Your task to perform on an android device: Go to CNN.com Image 0: 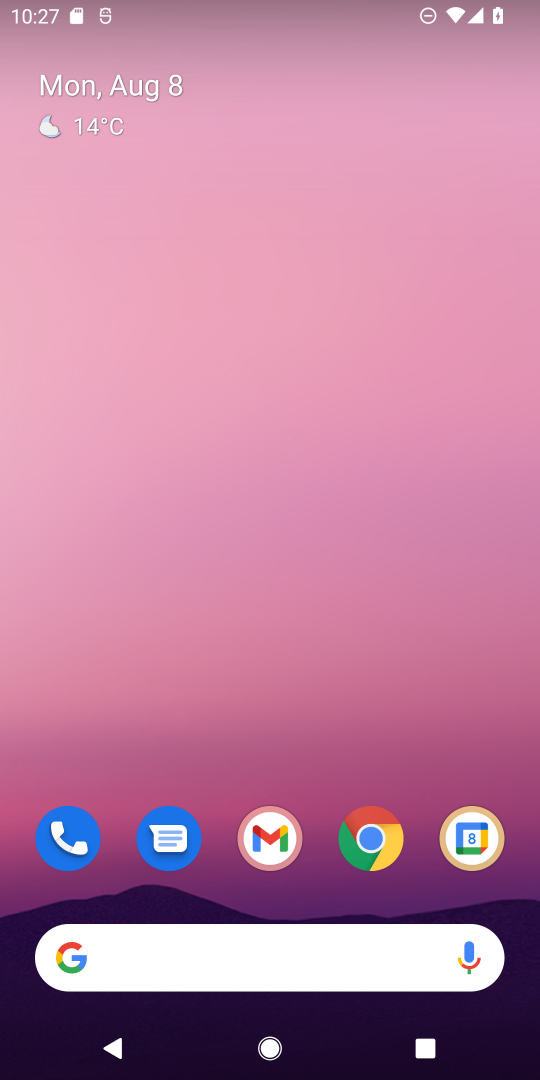
Step 0: click (54, 969)
Your task to perform on an android device: Go to CNN.com Image 1: 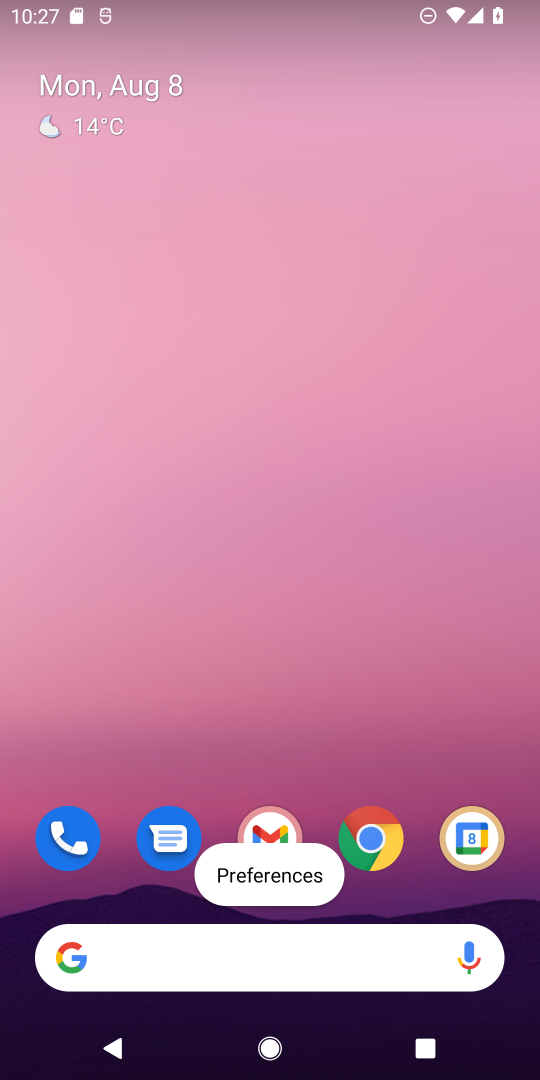
Step 1: click (55, 968)
Your task to perform on an android device: Go to CNN.com Image 2: 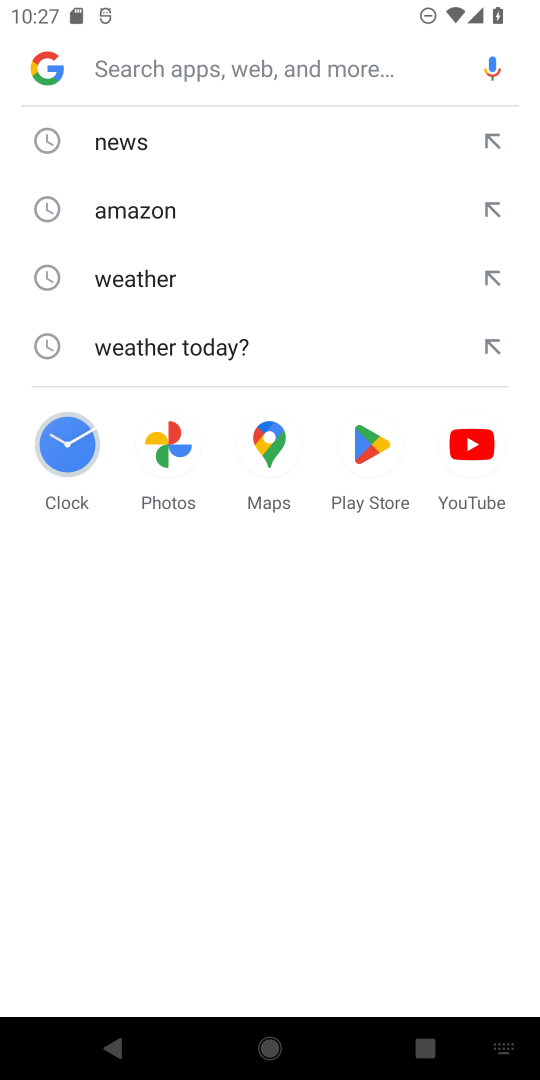
Step 2: press enter
Your task to perform on an android device: Go to CNN.com Image 3: 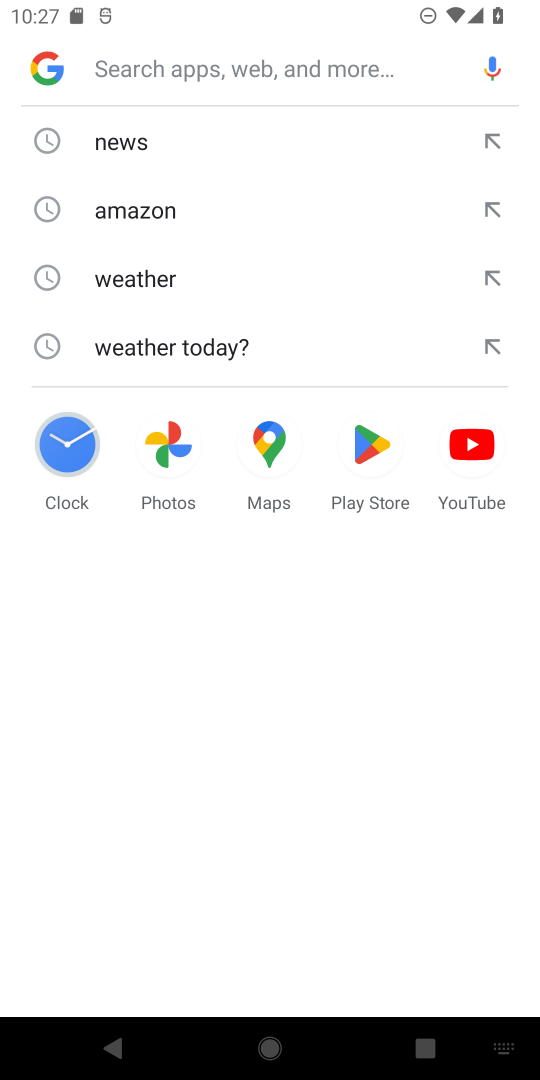
Step 3: type "CNN.com"
Your task to perform on an android device: Go to CNN.com Image 4: 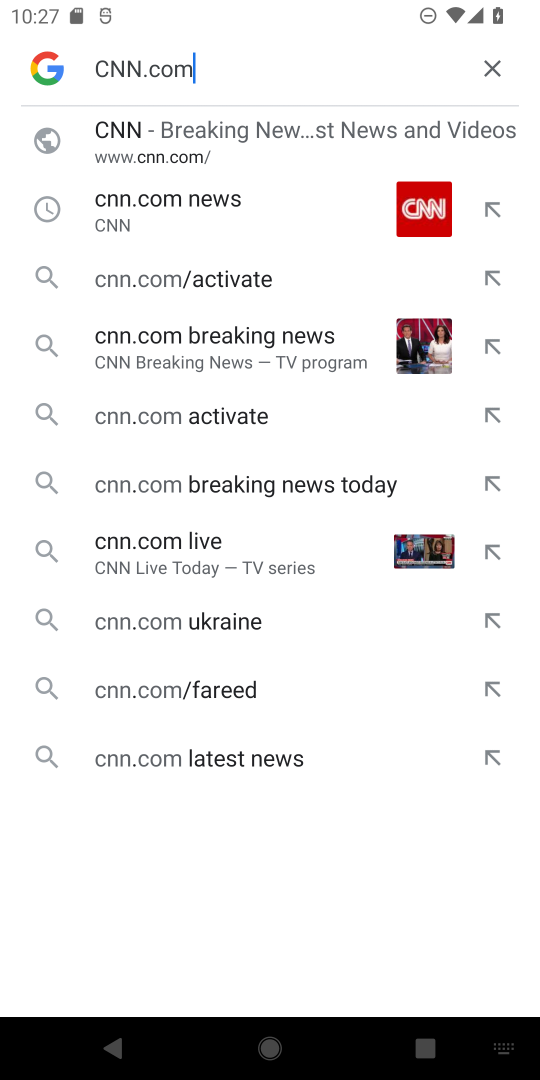
Step 4: click (173, 125)
Your task to perform on an android device: Go to CNN.com Image 5: 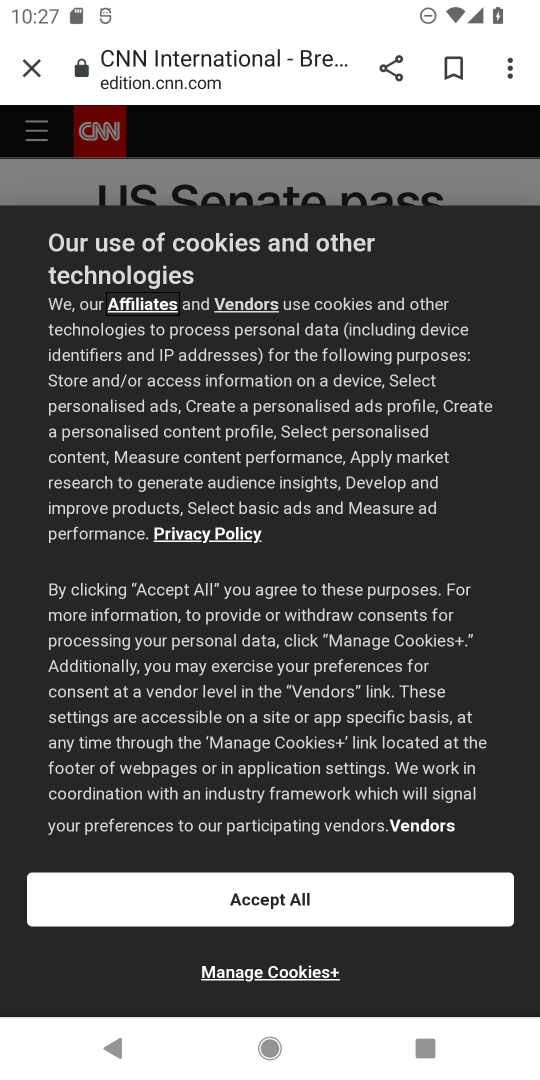
Step 5: click (327, 891)
Your task to perform on an android device: Go to CNN.com Image 6: 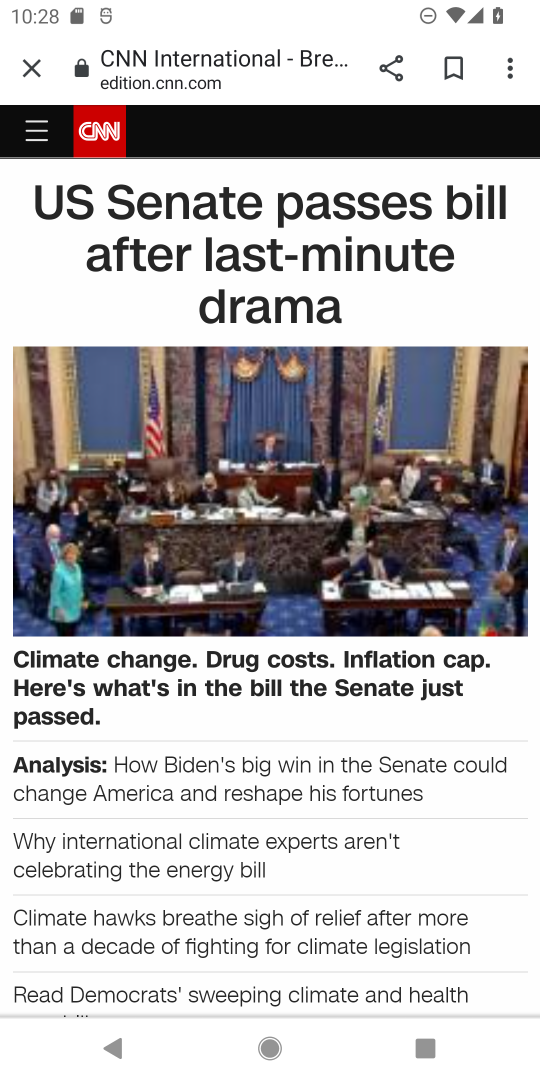
Step 6: task complete